Your task to perform on an android device: Search for seafood restaurants on Google Maps Image 0: 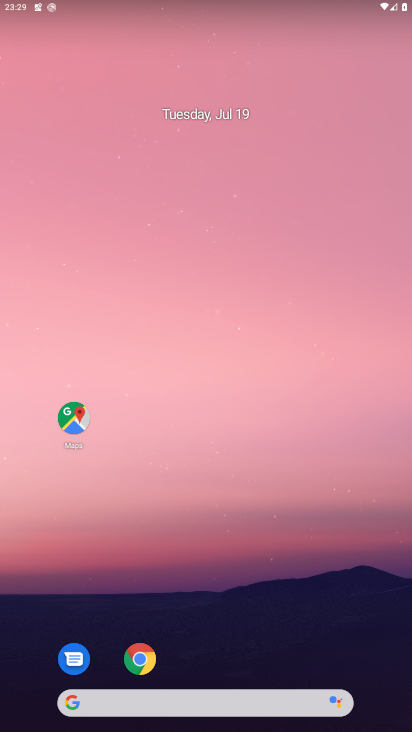
Step 0: click (65, 417)
Your task to perform on an android device: Search for seafood restaurants on Google Maps Image 1: 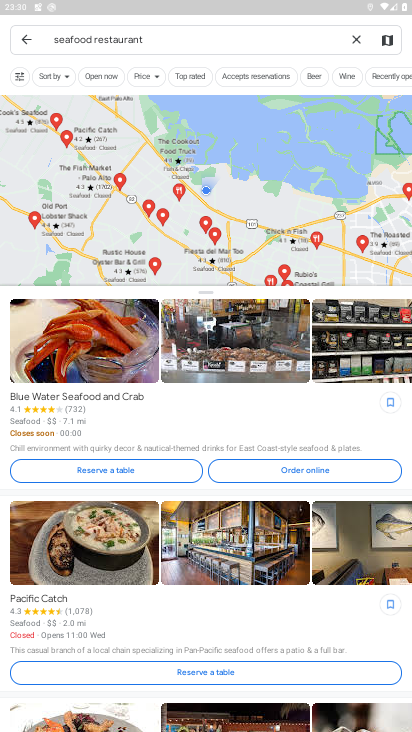
Step 1: task complete